Your task to perform on an android device: snooze an email in the gmail app Image 0: 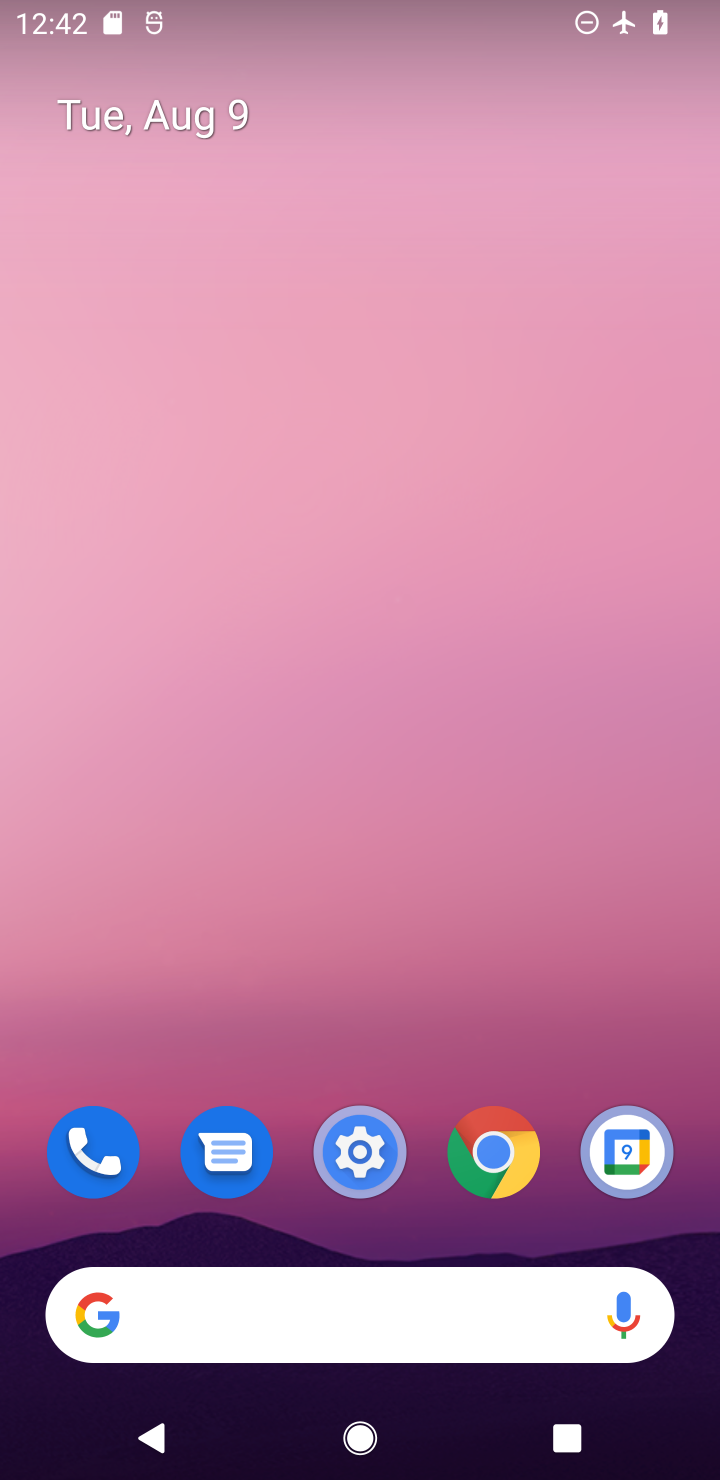
Step 0: drag from (554, 1083) to (421, 343)
Your task to perform on an android device: snooze an email in the gmail app Image 1: 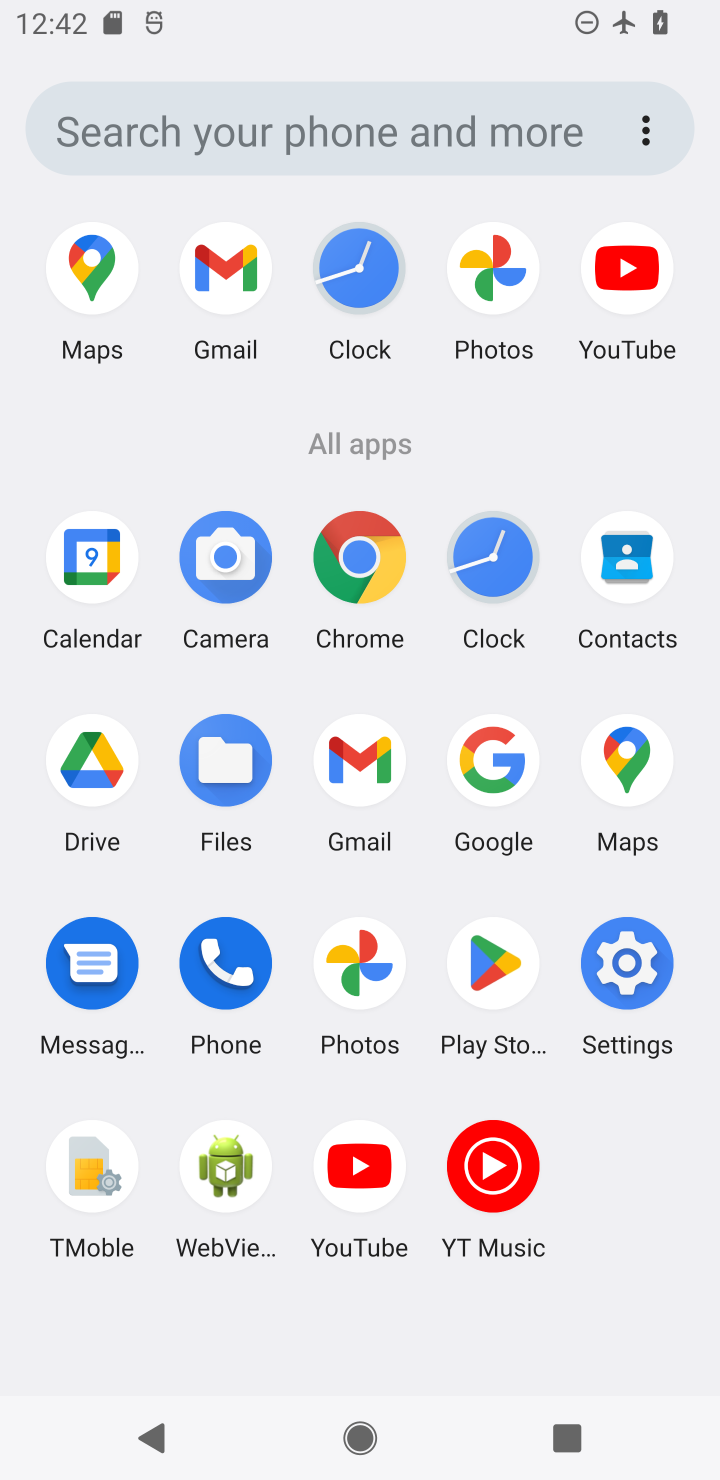
Step 1: click (359, 783)
Your task to perform on an android device: snooze an email in the gmail app Image 2: 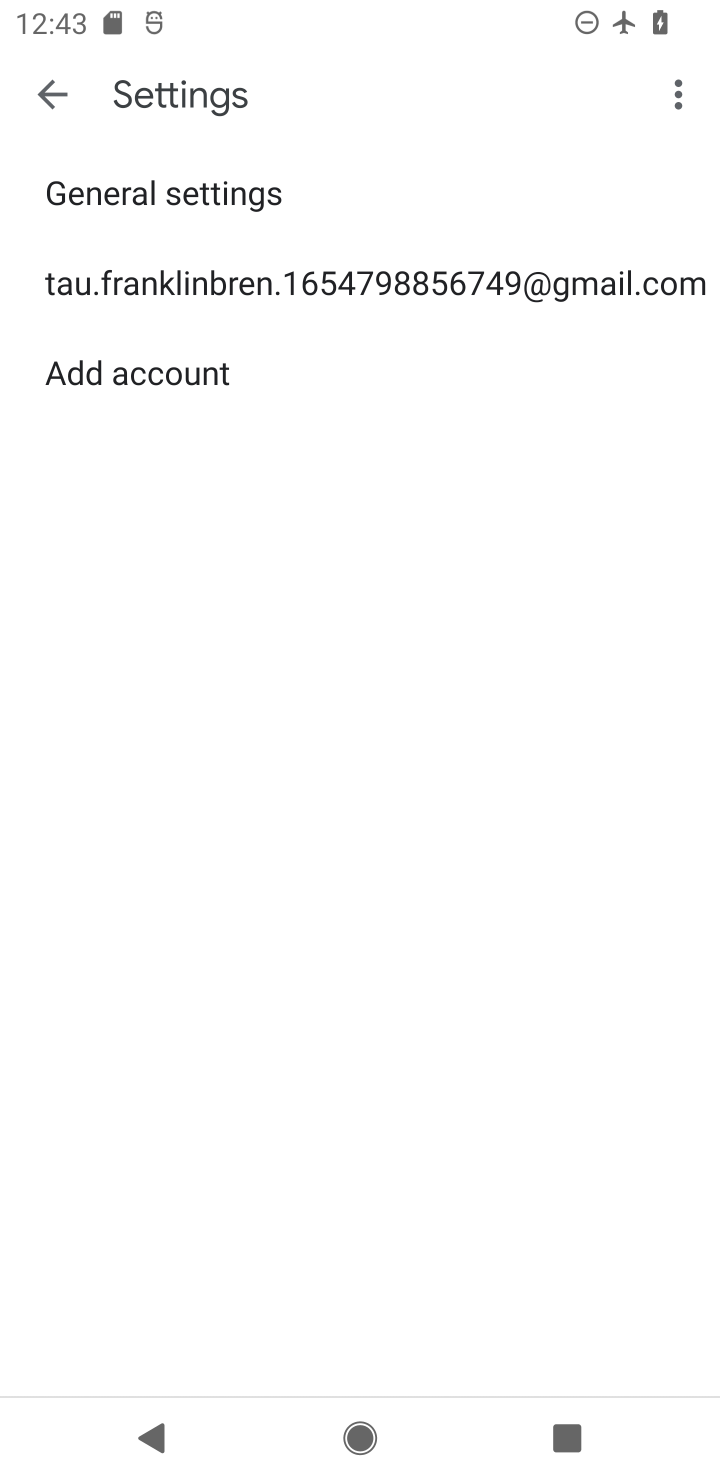
Step 2: click (49, 110)
Your task to perform on an android device: snooze an email in the gmail app Image 3: 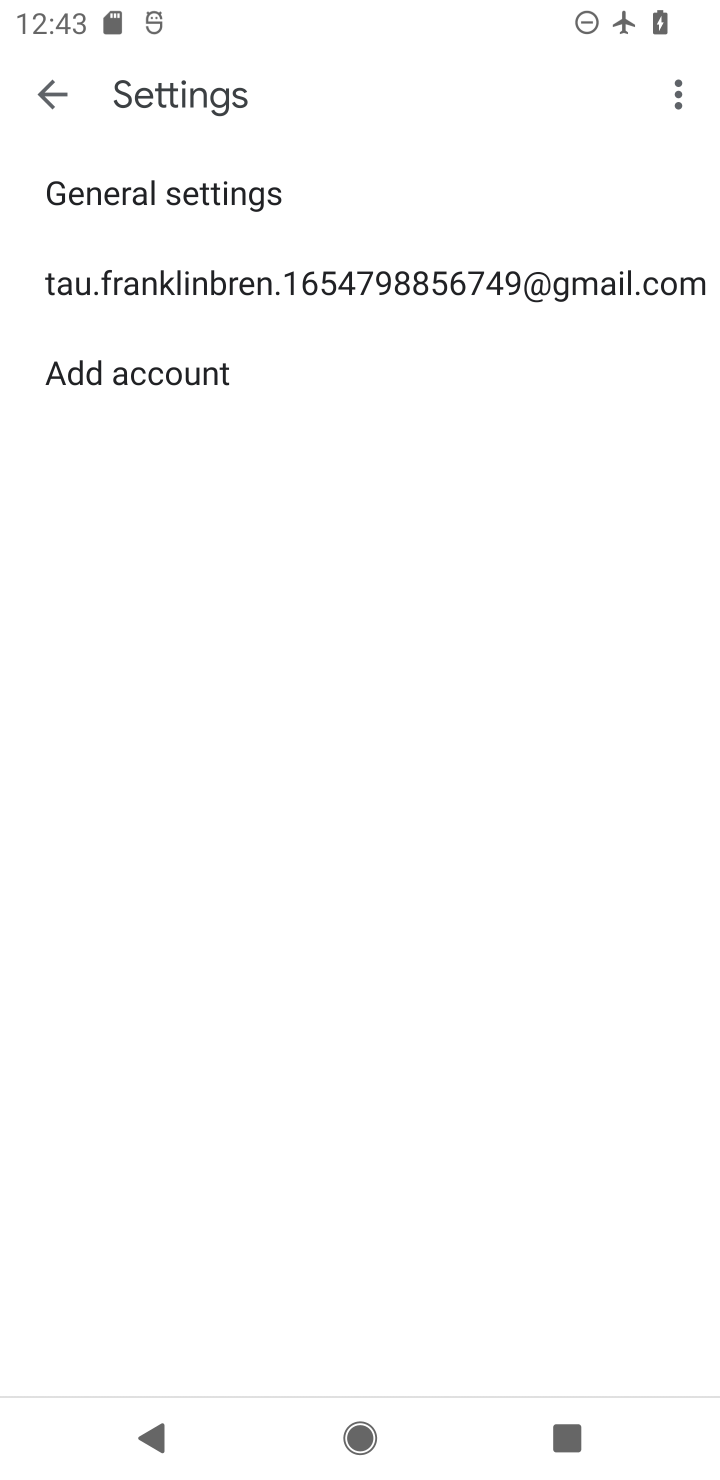
Step 3: click (42, 104)
Your task to perform on an android device: snooze an email in the gmail app Image 4: 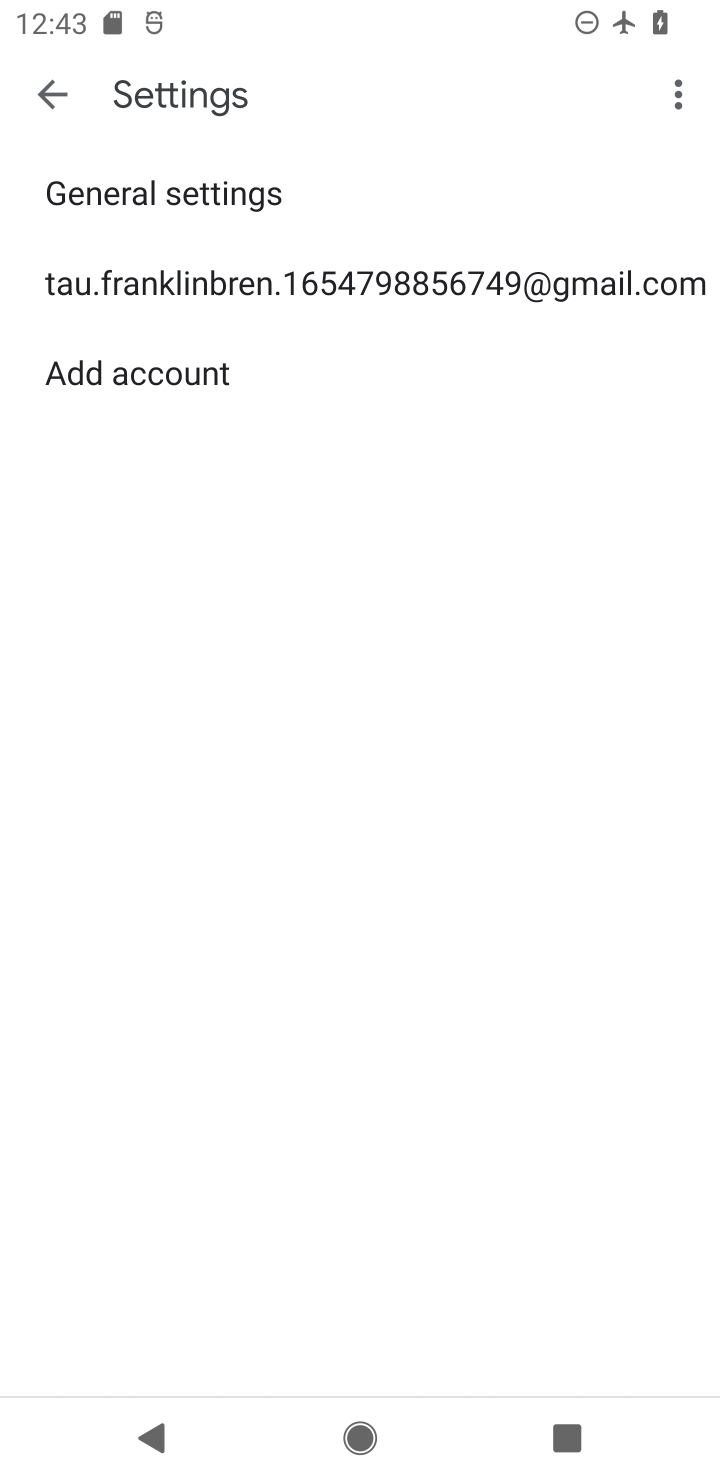
Step 4: click (42, 87)
Your task to perform on an android device: snooze an email in the gmail app Image 5: 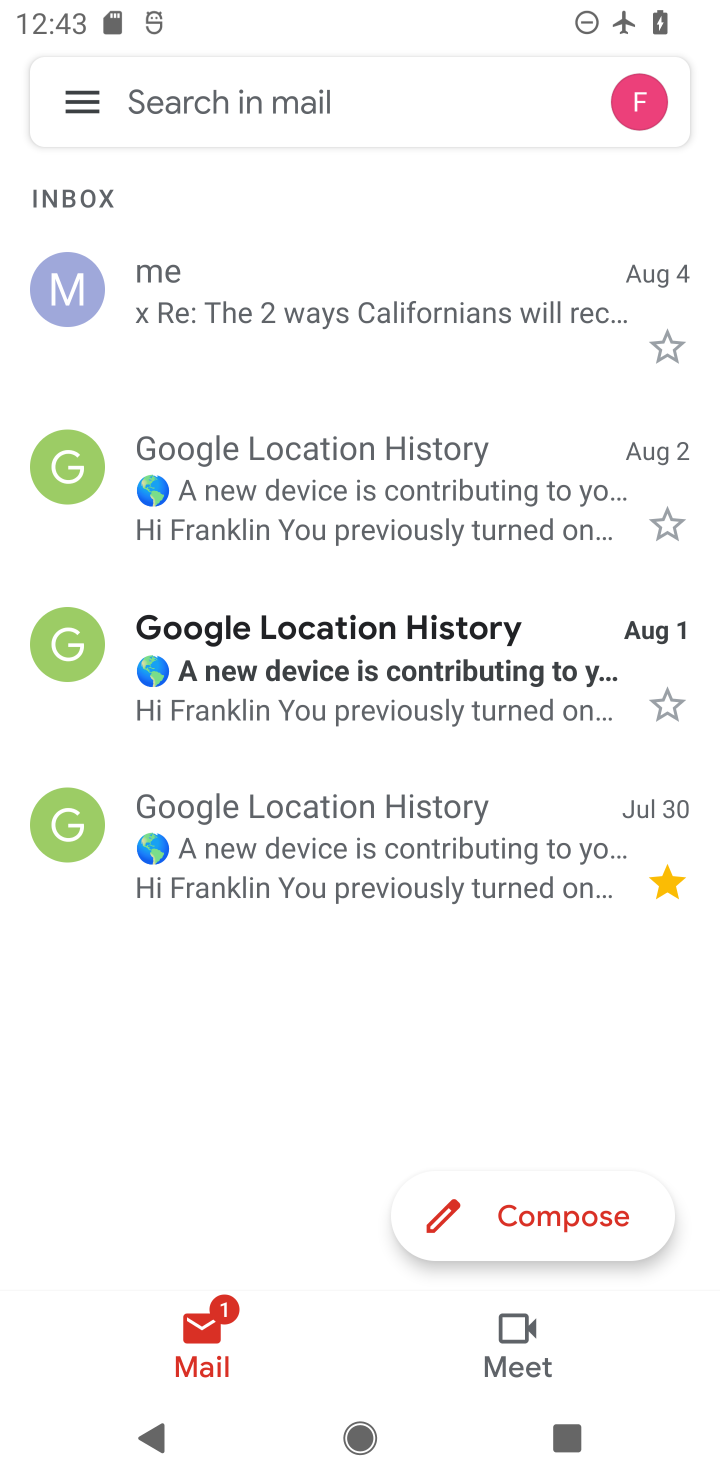
Step 5: click (336, 470)
Your task to perform on an android device: snooze an email in the gmail app Image 6: 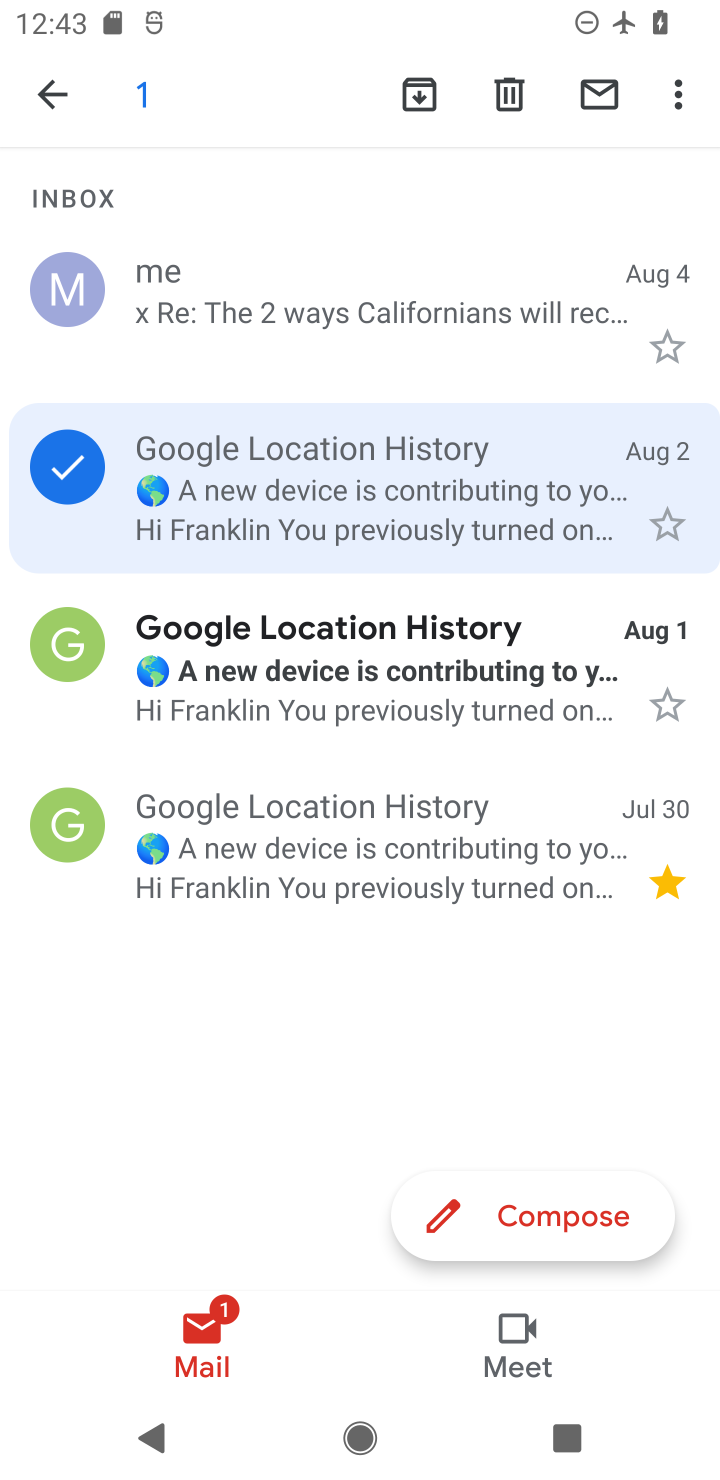
Step 6: click (678, 117)
Your task to perform on an android device: snooze an email in the gmail app Image 7: 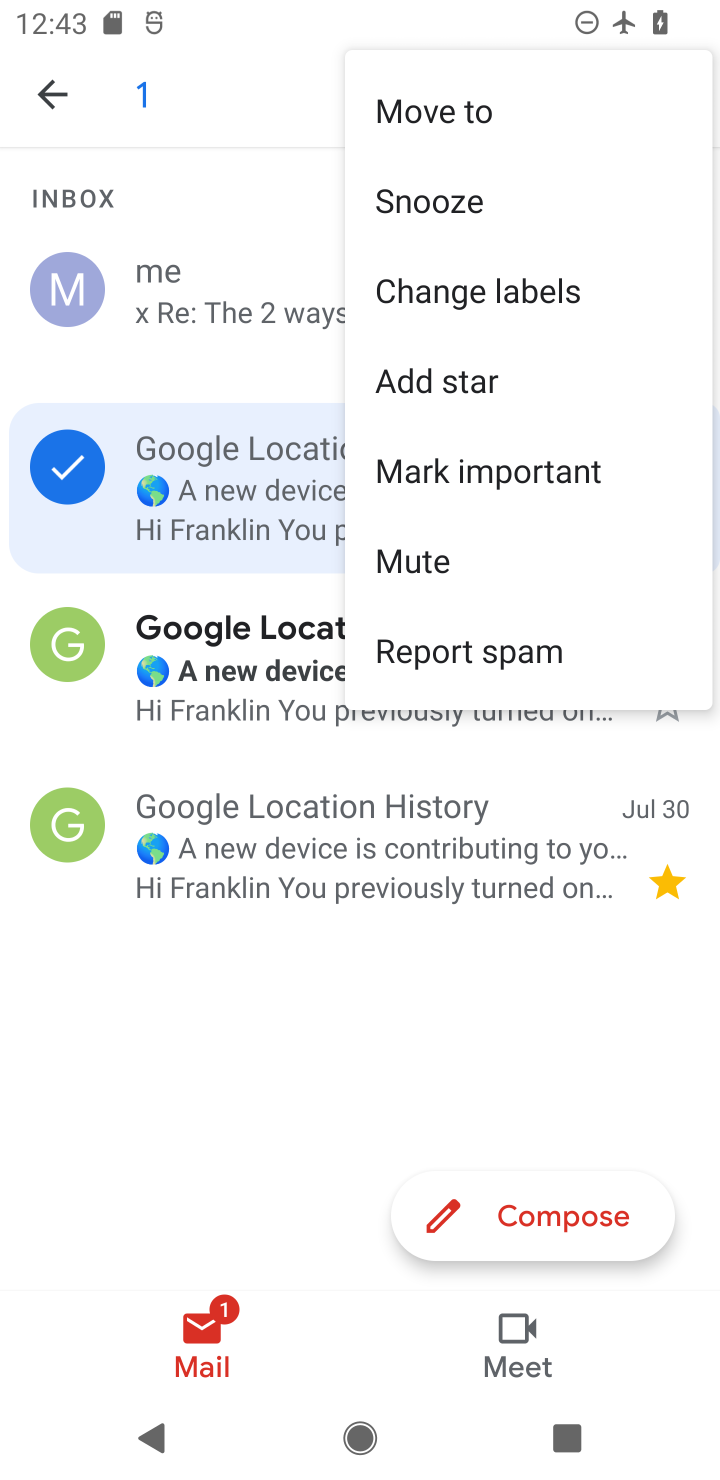
Step 7: click (425, 212)
Your task to perform on an android device: snooze an email in the gmail app Image 8: 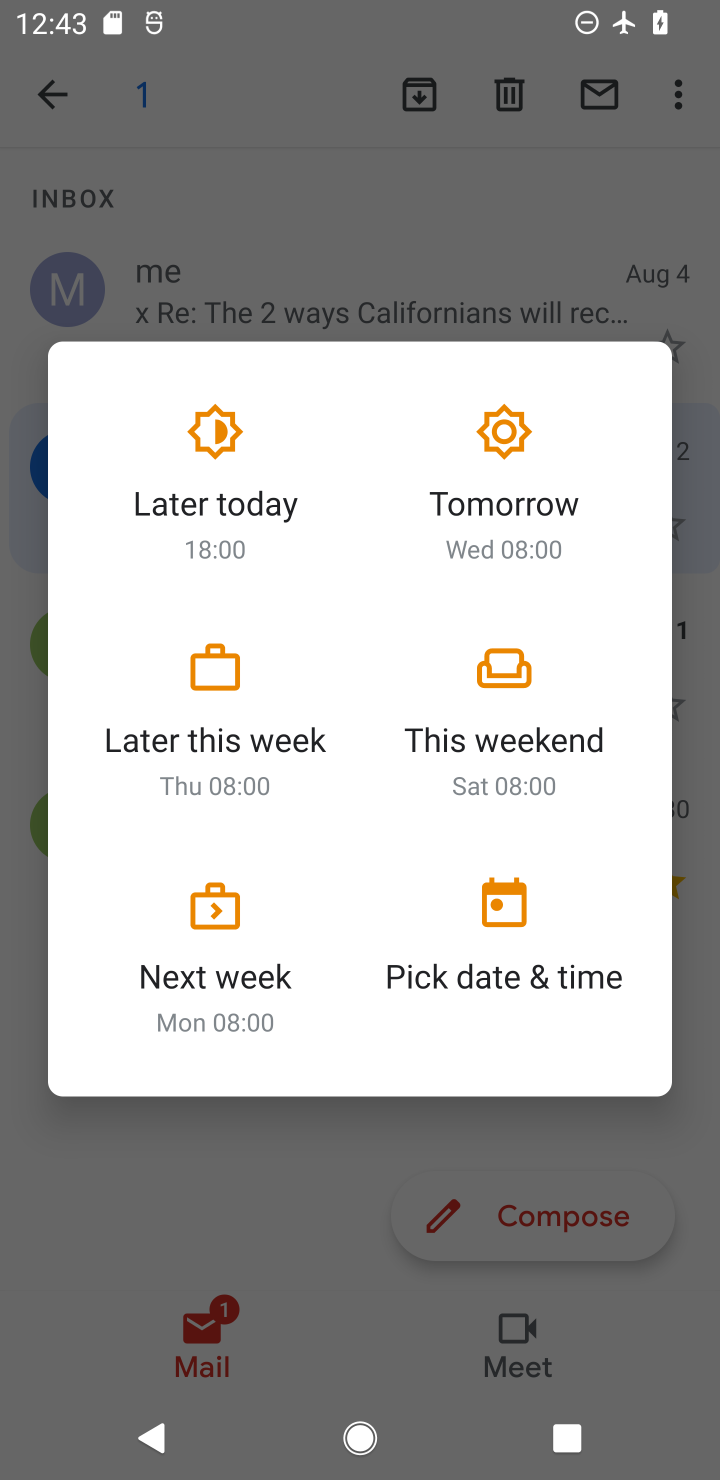
Step 8: click (527, 462)
Your task to perform on an android device: snooze an email in the gmail app Image 9: 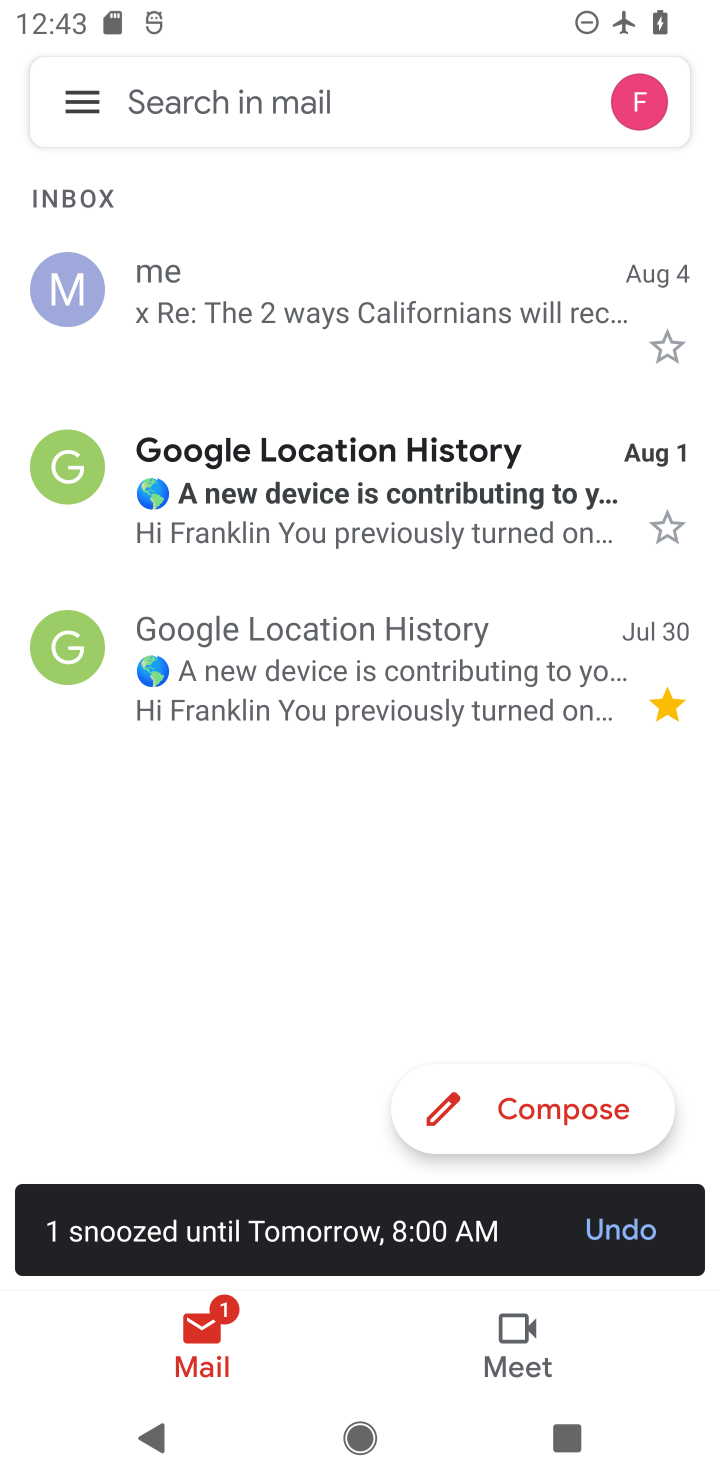
Step 9: task complete